Your task to perform on an android device: search for starred emails in the gmail app Image 0: 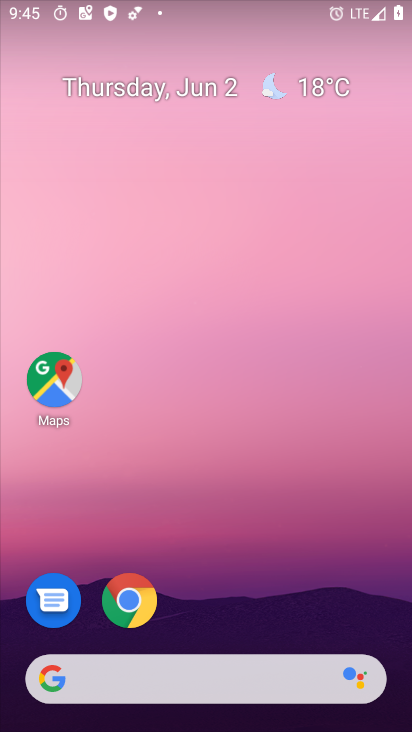
Step 0: drag from (372, 610) to (371, 251)
Your task to perform on an android device: search for starred emails in the gmail app Image 1: 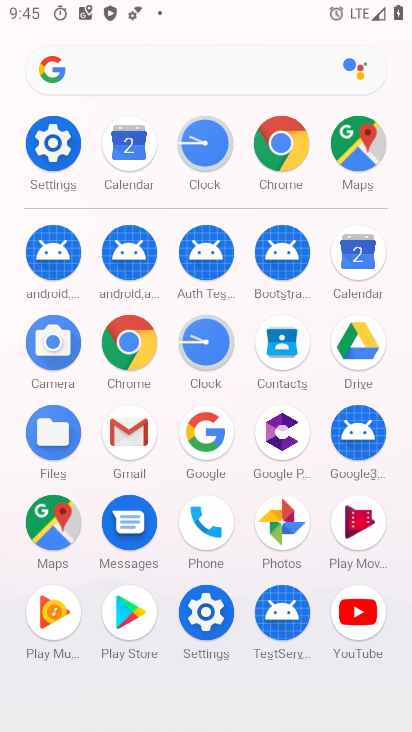
Step 1: click (136, 442)
Your task to perform on an android device: search for starred emails in the gmail app Image 2: 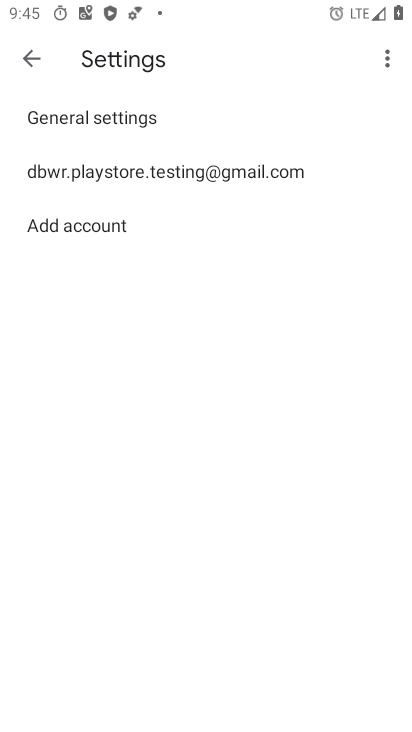
Step 2: press back button
Your task to perform on an android device: search for starred emails in the gmail app Image 3: 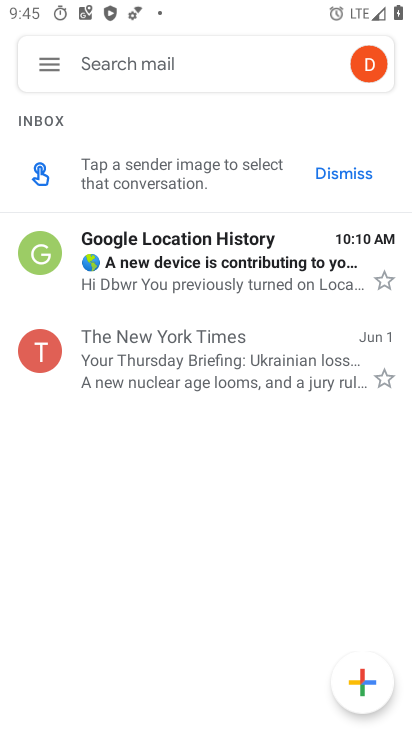
Step 3: click (50, 66)
Your task to perform on an android device: search for starred emails in the gmail app Image 4: 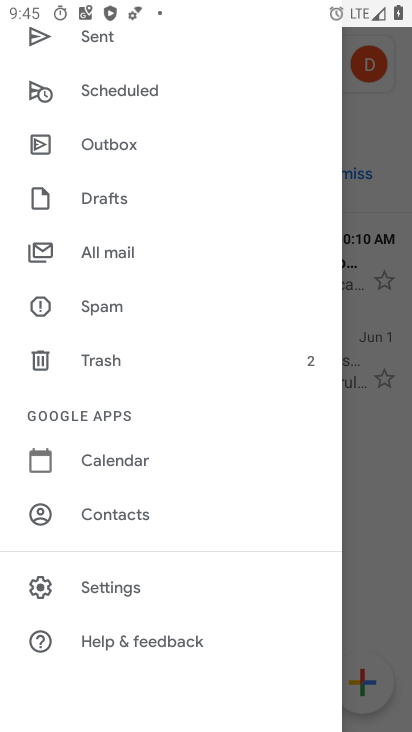
Step 4: drag from (223, 326) to (220, 438)
Your task to perform on an android device: search for starred emails in the gmail app Image 5: 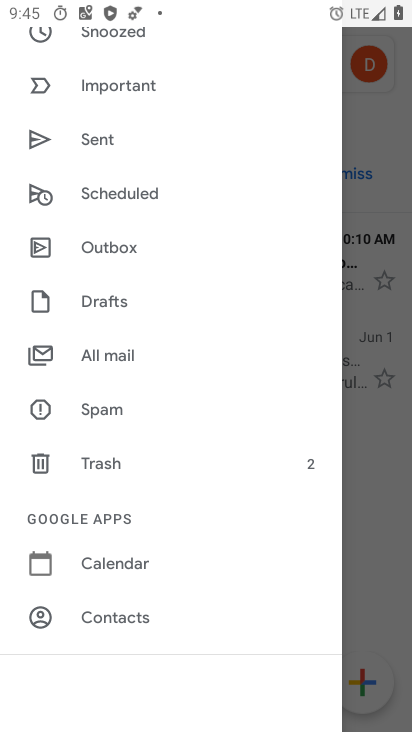
Step 5: drag from (229, 285) to (236, 432)
Your task to perform on an android device: search for starred emails in the gmail app Image 6: 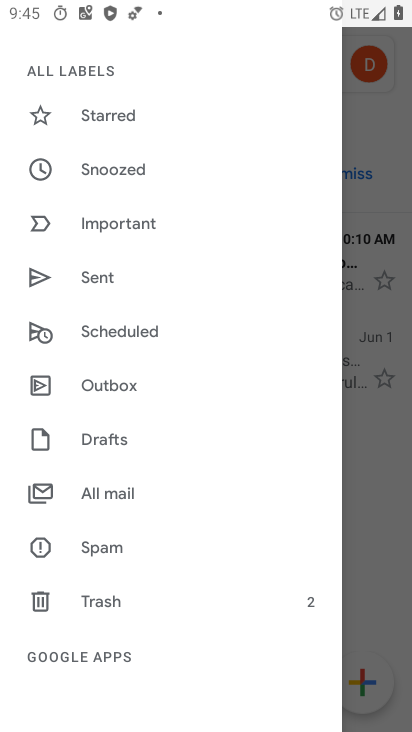
Step 6: drag from (238, 237) to (261, 428)
Your task to perform on an android device: search for starred emails in the gmail app Image 7: 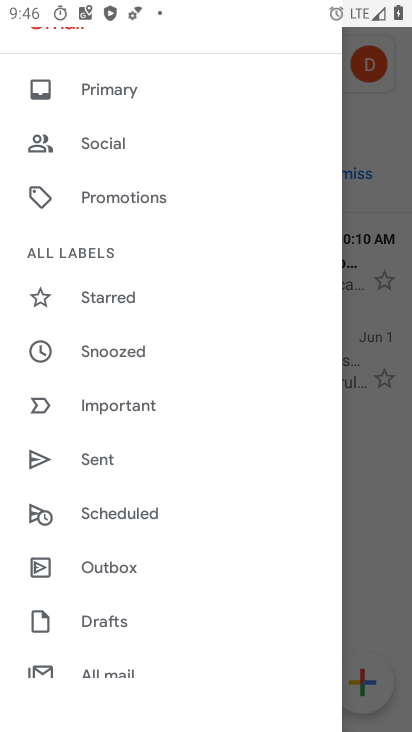
Step 7: click (163, 306)
Your task to perform on an android device: search for starred emails in the gmail app Image 8: 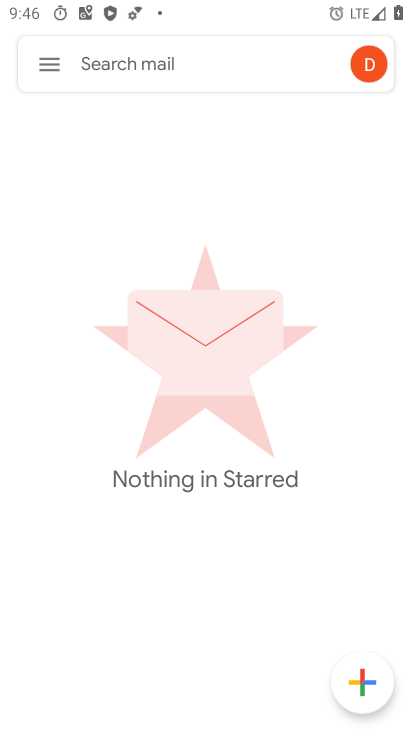
Step 8: task complete